Your task to perform on an android device: move a message to another label in the gmail app Image 0: 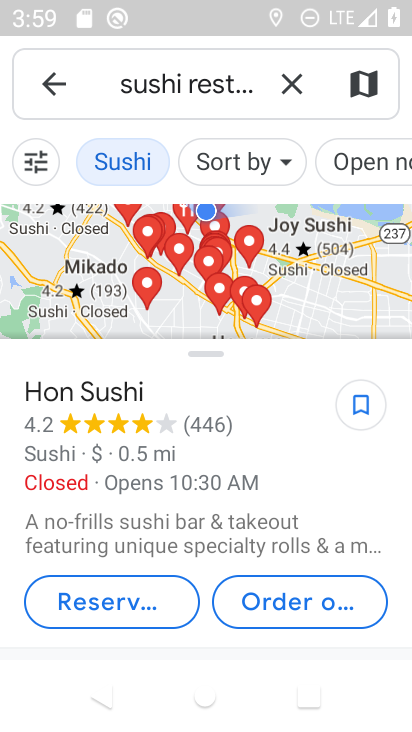
Step 0: press back button
Your task to perform on an android device: move a message to another label in the gmail app Image 1: 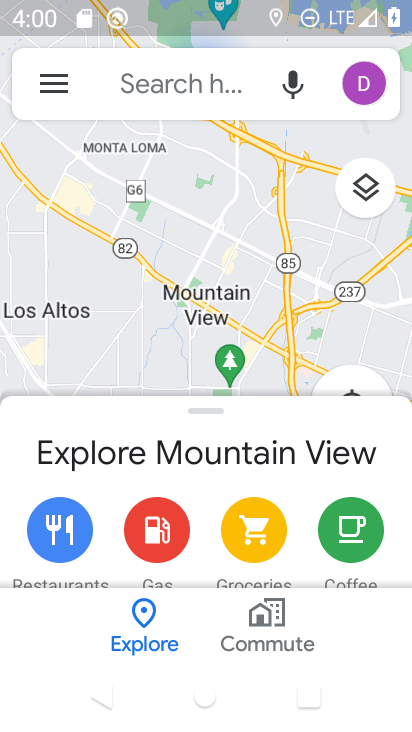
Step 1: press back button
Your task to perform on an android device: move a message to another label in the gmail app Image 2: 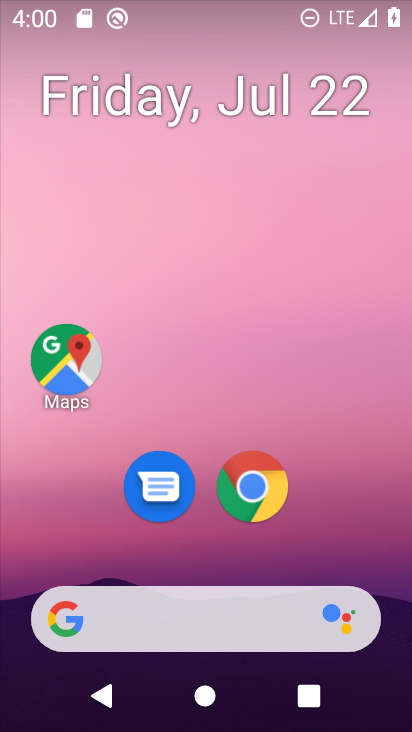
Step 2: drag from (141, 536) to (181, 12)
Your task to perform on an android device: move a message to another label in the gmail app Image 3: 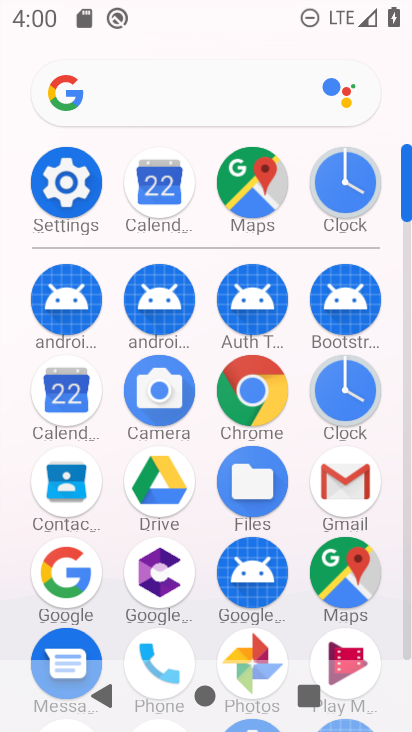
Step 3: click (341, 476)
Your task to perform on an android device: move a message to another label in the gmail app Image 4: 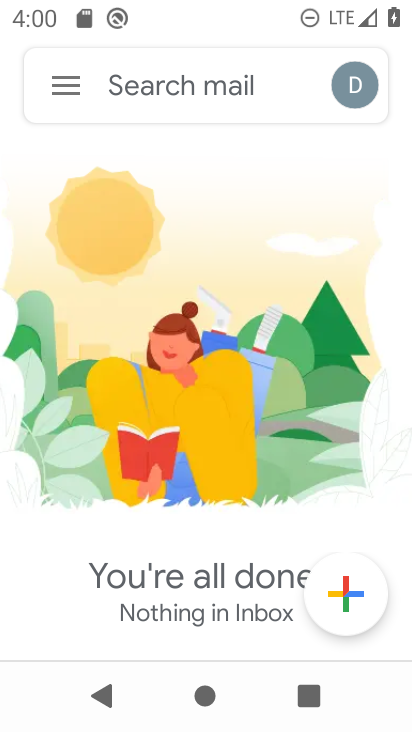
Step 4: click (63, 80)
Your task to perform on an android device: move a message to another label in the gmail app Image 5: 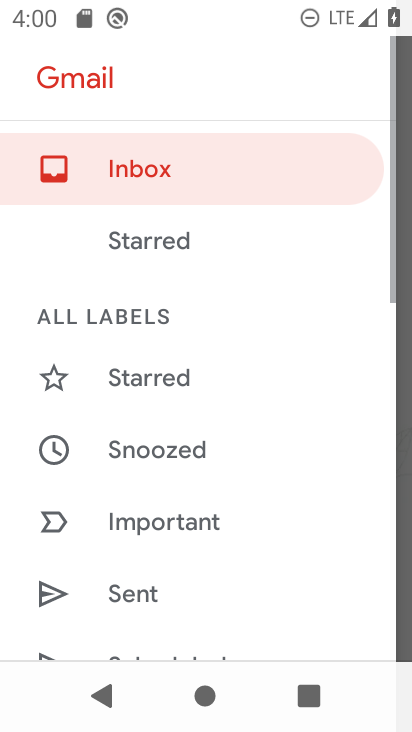
Step 5: drag from (178, 584) to (214, 295)
Your task to perform on an android device: move a message to another label in the gmail app Image 6: 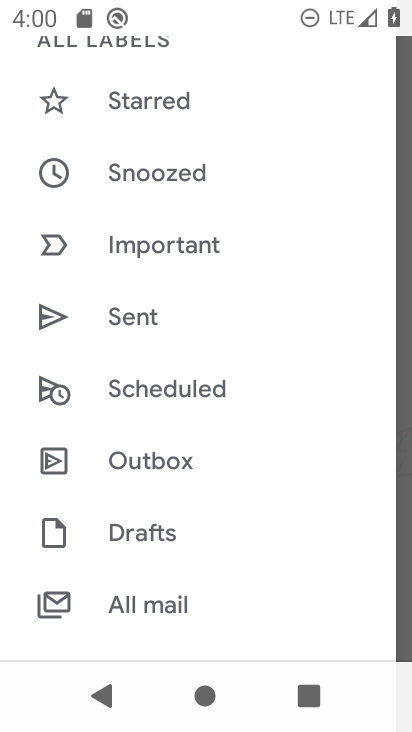
Step 6: click (155, 604)
Your task to perform on an android device: move a message to another label in the gmail app Image 7: 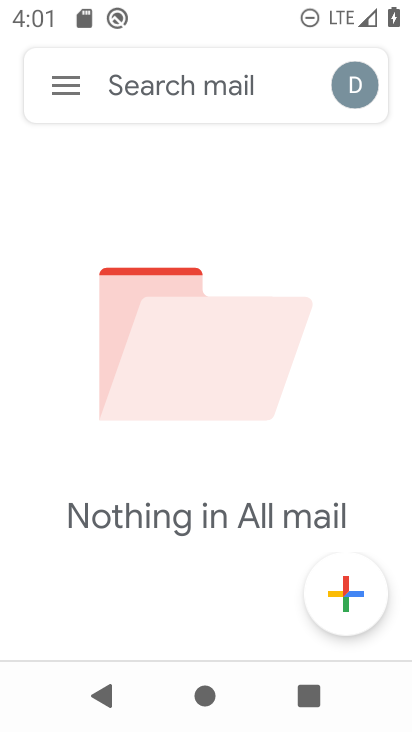
Step 7: click (63, 86)
Your task to perform on an android device: move a message to another label in the gmail app Image 8: 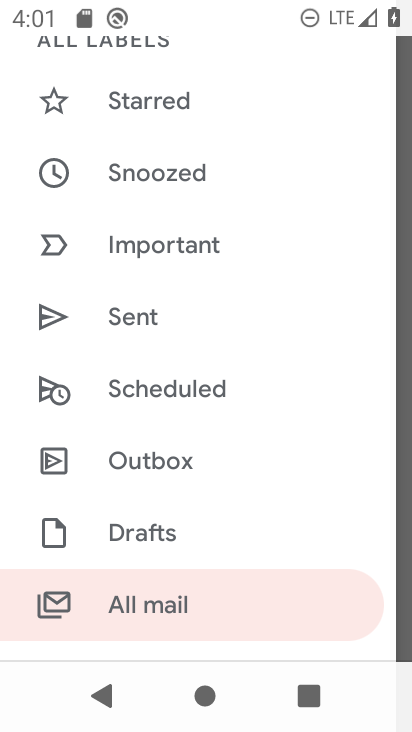
Step 8: click (189, 615)
Your task to perform on an android device: move a message to another label in the gmail app Image 9: 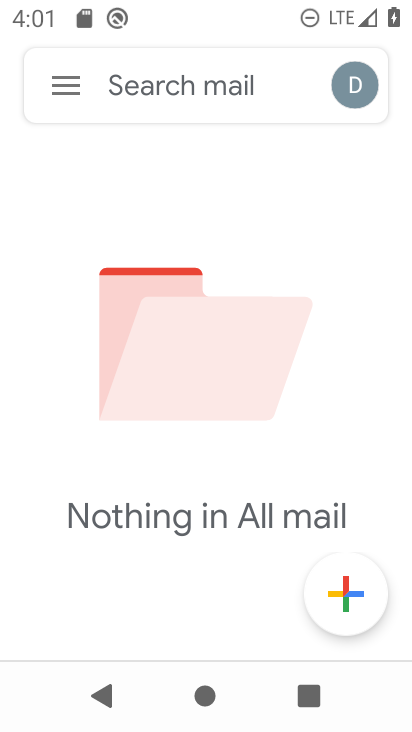
Step 9: task complete